Your task to perform on an android device: turn on priority inbox in the gmail app Image 0: 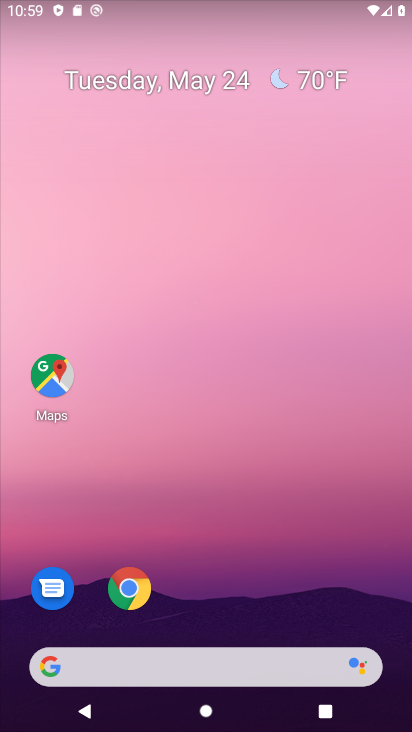
Step 0: press home button
Your task to perform on an android device: turn on priority inbox in the gmail app Image 1: 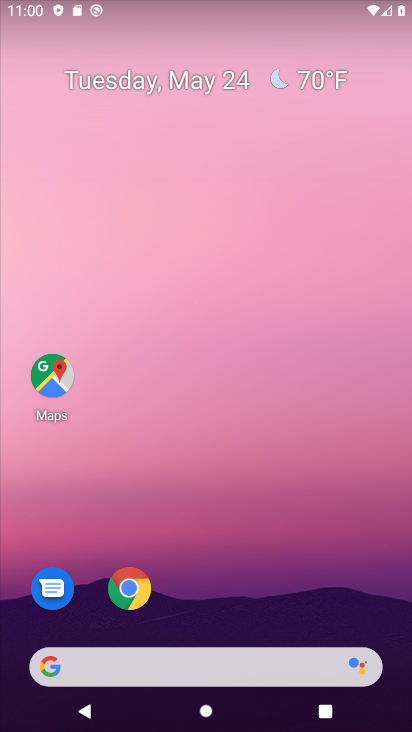
Step 1: drag from (219, 630) to (212, 52)
Your task to perform on an android device: turn on priority inbox in the gmail app Image 2: 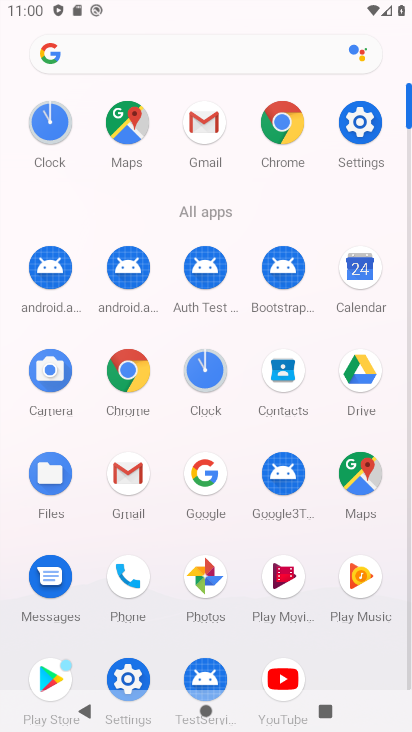
Step 2: click (205, 114)
Your task to perform on an android device: turn on priority inbox in the gmail app Image 3: 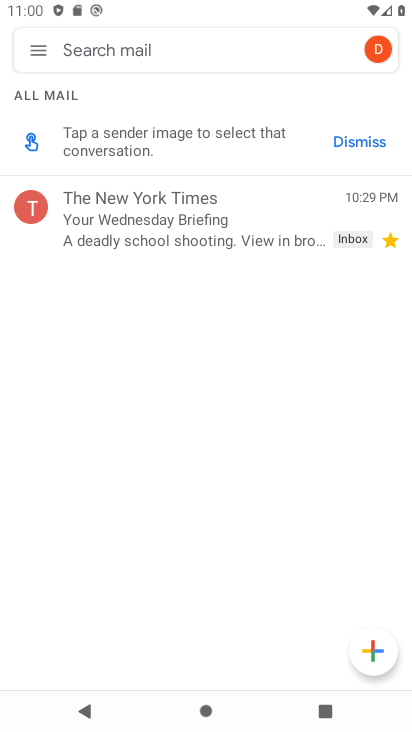
Step 3: click (37, 54)
Your task to perform on an android device: turn on priority inbox in the gmail app Image 4: 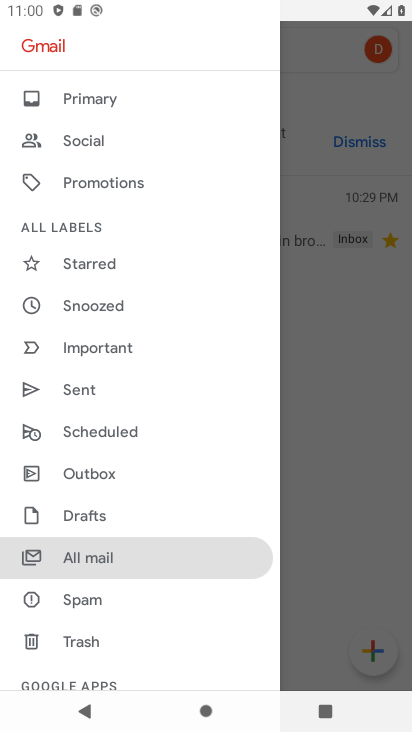
Step 4: drag from (98, 657) to (114, 93)
Your task to perform on an android device: turn on priority inbox in the gmail app Image 5: 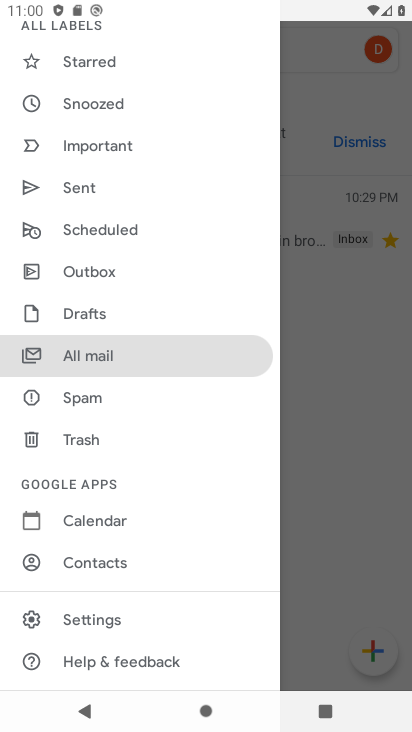
Step 5: click (136, 616)
Your task to perform on an android device: turn on priority inbox in the gmail app Image 6: 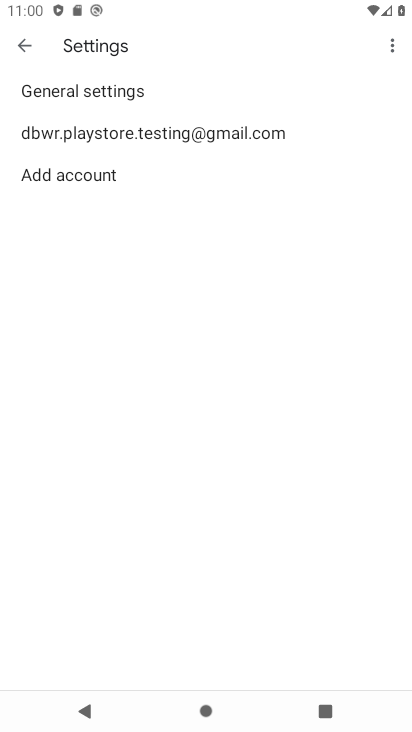
Step 6: click (145, 86)
Your task to perform on an android device: turn on priority inbox in the gmail app Image 7: 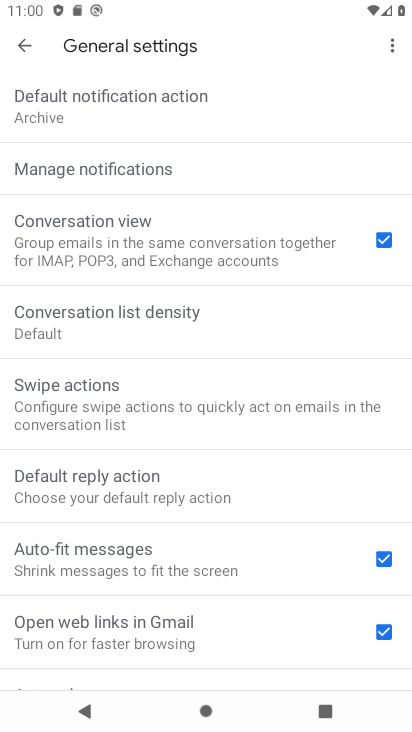
Step 7: click (191, 159)
Your task to perform on an android device: turn on priority inbox in the gmail app Image 8: 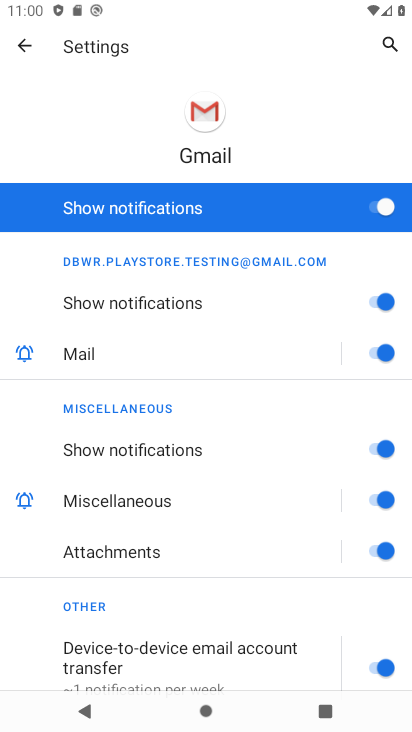
Step 8: click (17, 40)
Your task to perform on an android device: turn on priority inbox in the gmail app Image 9: 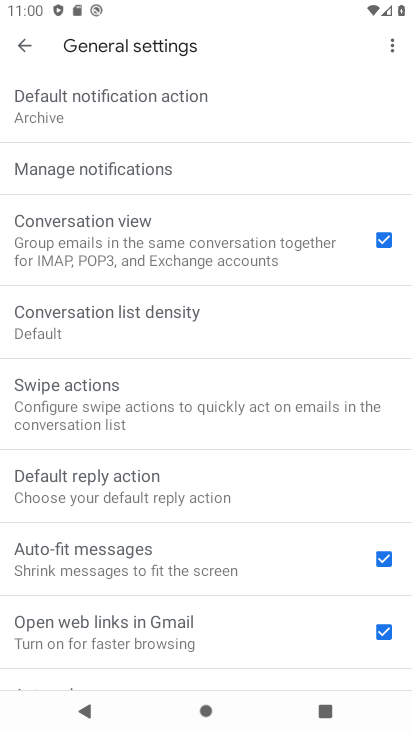
Step 9: click (17, 40)
Your task to perform on an android device: turn on priority inbox in the gmail app Image 10: 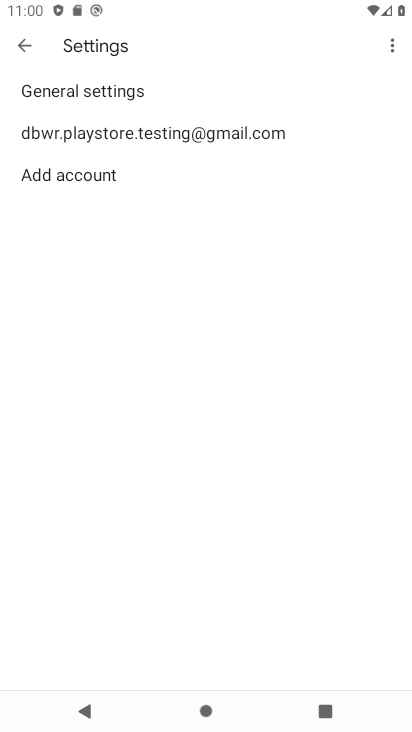
Step 10: click (100, 134)
Your task to perform on an android device: turn on priority inbox in the gmail app Image 11: 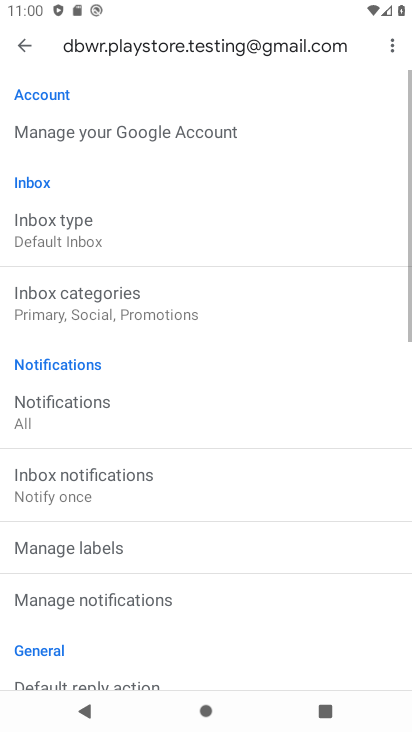
Step 11: click (106, 239)
Your task to perform on an android device: turn on priority inbox in the gmail app Image 12: 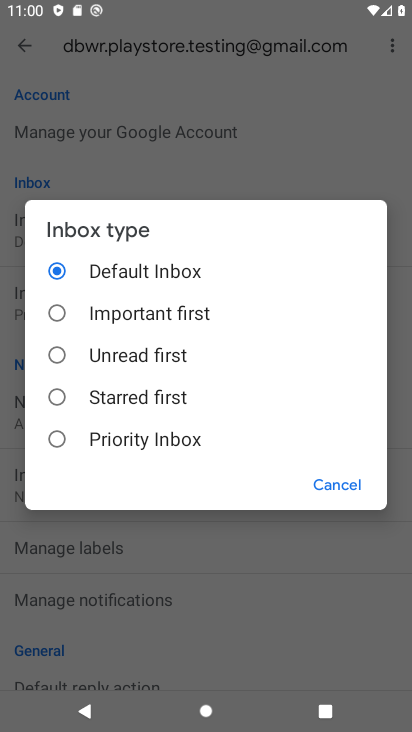
Step 12: click (59, 435)
Your task to perform on an android device: turn on priority inbox in the gmail app Image 13: 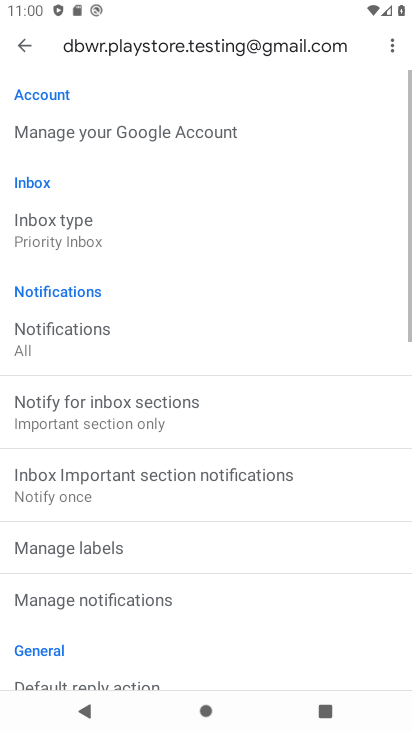
Step 13: task complete